Your task to perform on an android device: Search for vegetarian restaurants on Maps Image 0: 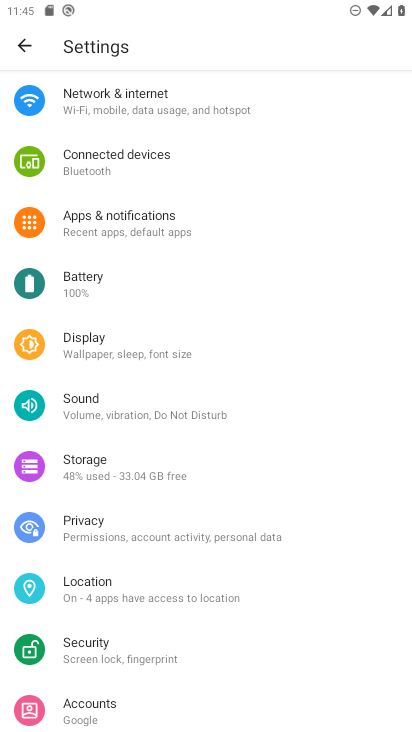
Step 0: press home button
Your task to perform on an android device: Search for vegetarian restaurants on Maps Image 1: 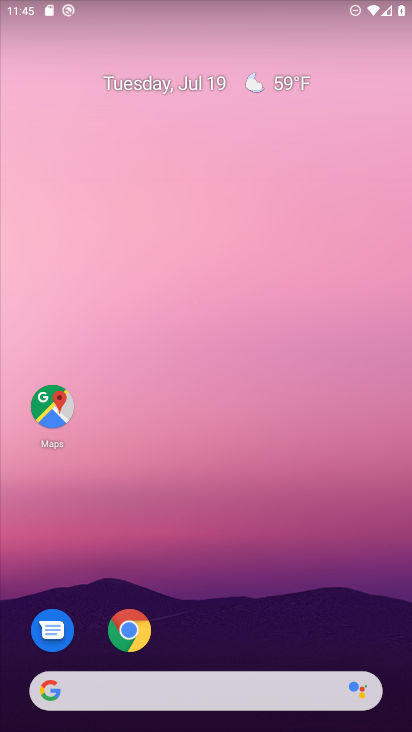
Step 1: drag from (231, 651) to (186, 10)
Your task to perform on an android device: Search for vegetarian restaurants on Maps Image 2: 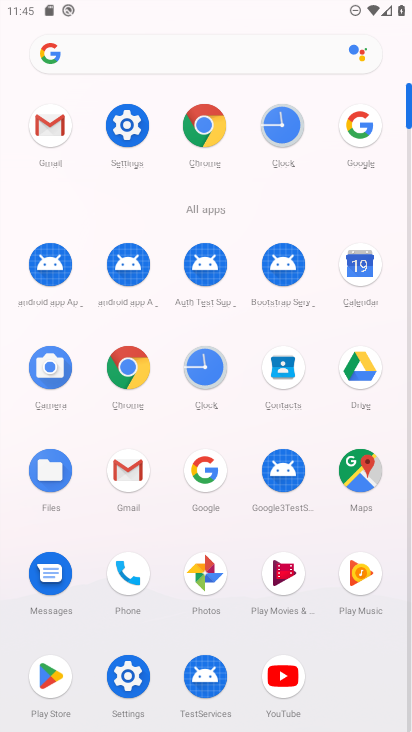
Step 2: click (363, 470)
Your task to perform on an android device: Search for vegetarian restaurants on Maps Image 3: 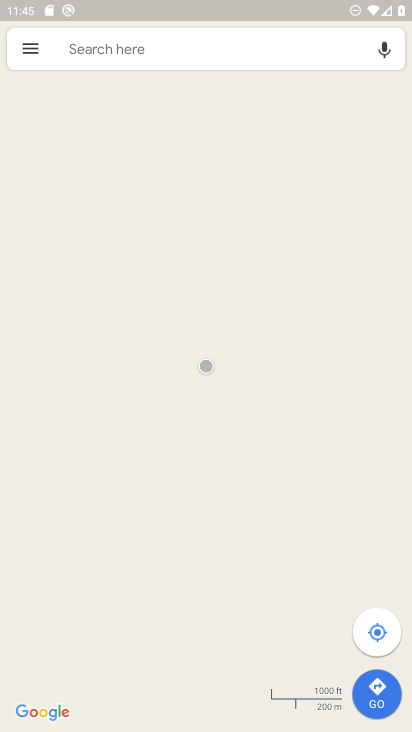
Step 3: click (230, 54)
Your task to perform on an android device: Search for vegetarian restaurants on Maps Image 4: 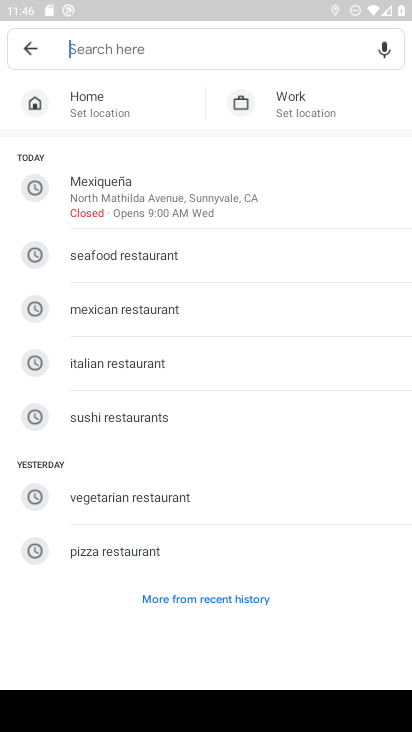
Step 4: type "vegetarian restaurant"
Your task to perform on an android device: Search for vegetarian restaurants on Maps Image 5: 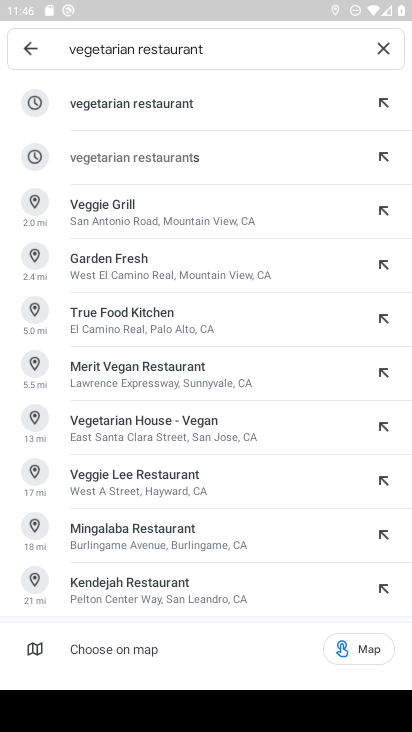
Step 5: click (175, 112)
Your task to perform on an android device: Search for vegetarian restaurants on Maps Image 6: 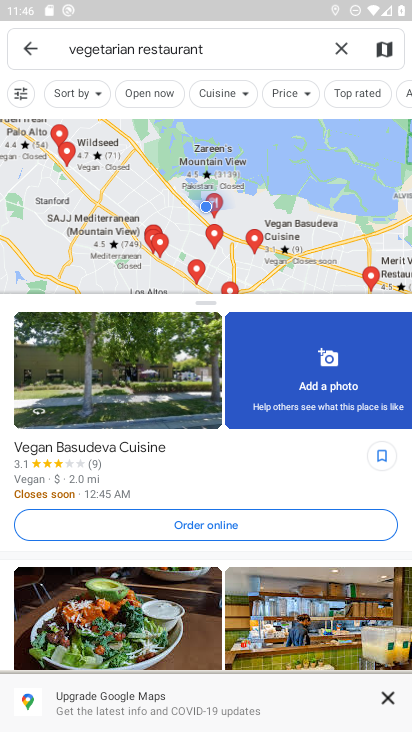
Step 6: task complete